Your task to perform on an android device: Toggle the flashlight Image 0: 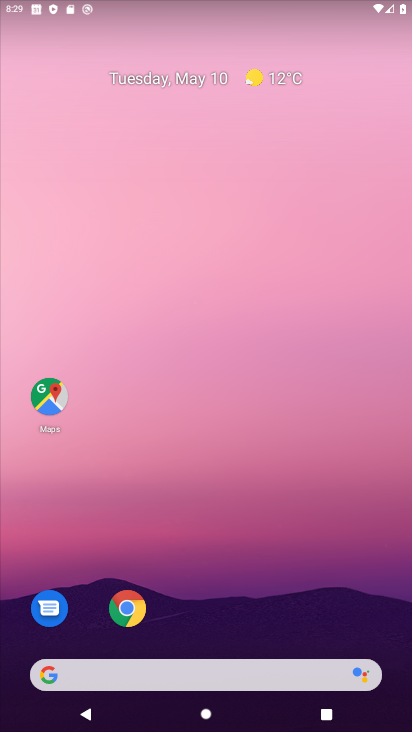
Step 0: click (138, 617)
Your task to perform on an android device: Toggle the flashlight Image 1: 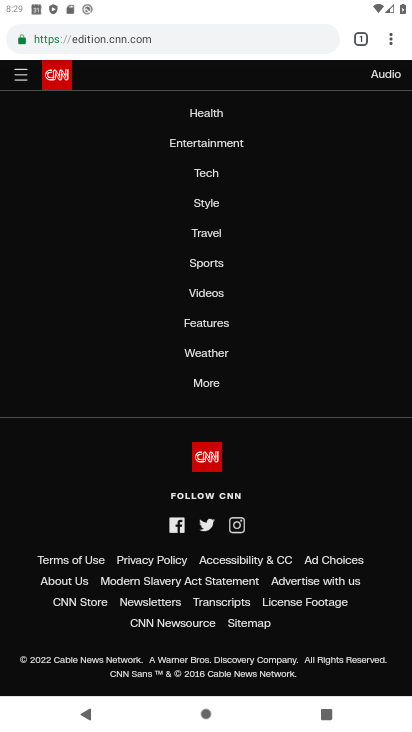
Step 1: task complete